Your task to perform on an android device: toggle notification dots Image 0: 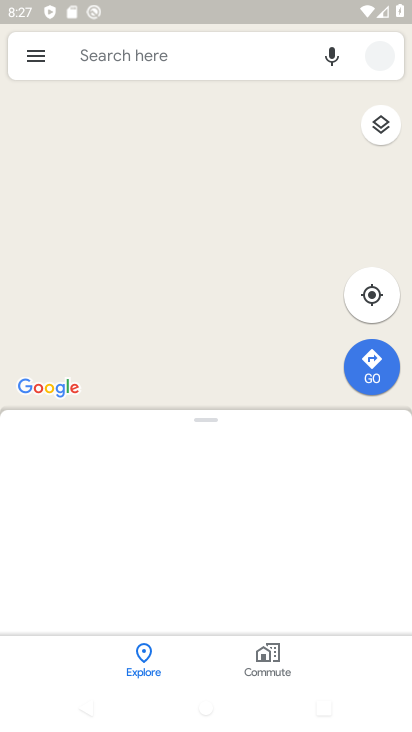
Step 0: press back button
Your task to perform on an android device: toggle notification dots Image 1: 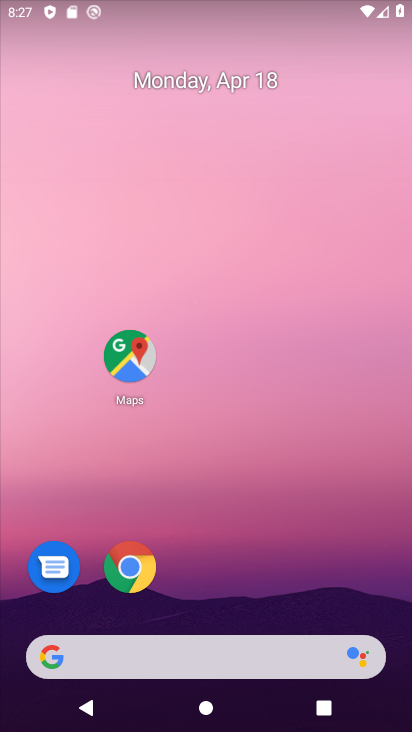
Step 1: drag from (281, 693) to (285, 378)
Your task to perform on an android device: toggle notification dots Image 2: 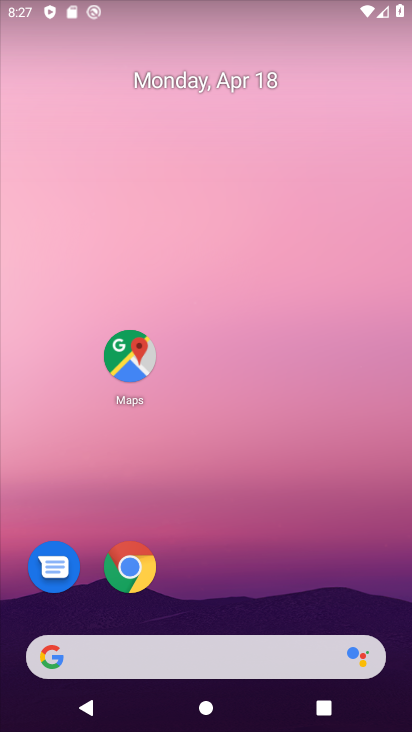
Step 2: drag from (250, 671) to (342, 150)
Your task to perform on an android device: toggle notification dots Image 3: 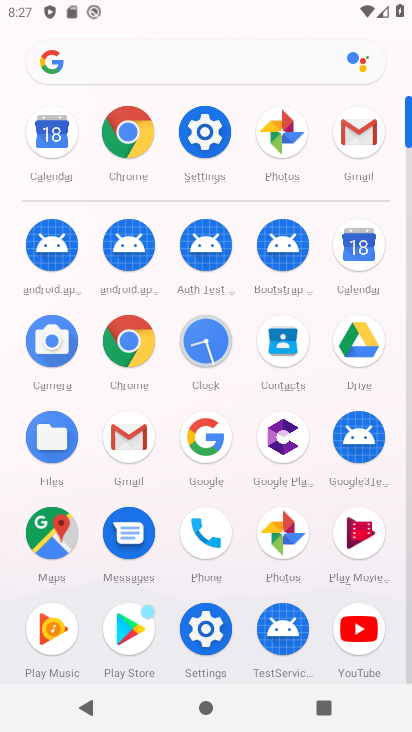
Step 3: click (210, 133)
Your task to perform on an android device: toggle notification dots Image 4: 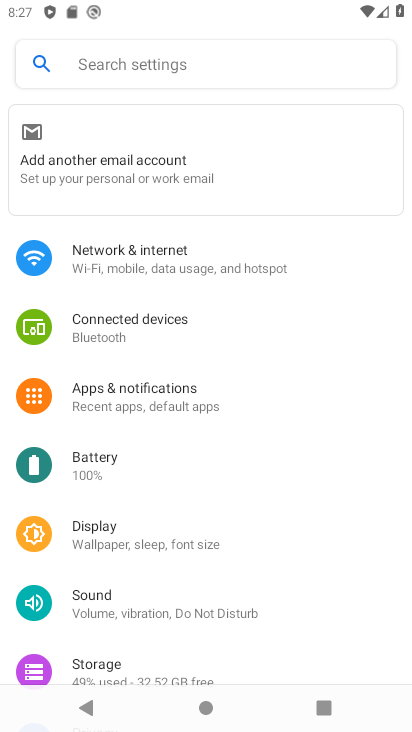
Step 4: click (148, 71)
Your task to perform on an android device: toggle notification dots Image 5: 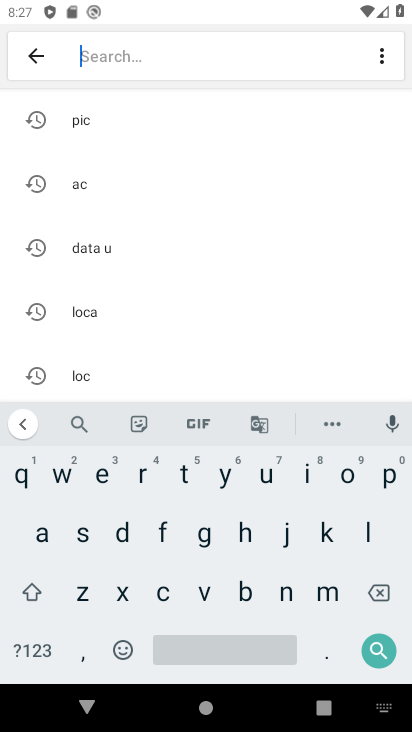
Step 5: click (128, 537)
Your task to perform on an android device: toggle notification dots Image 6: 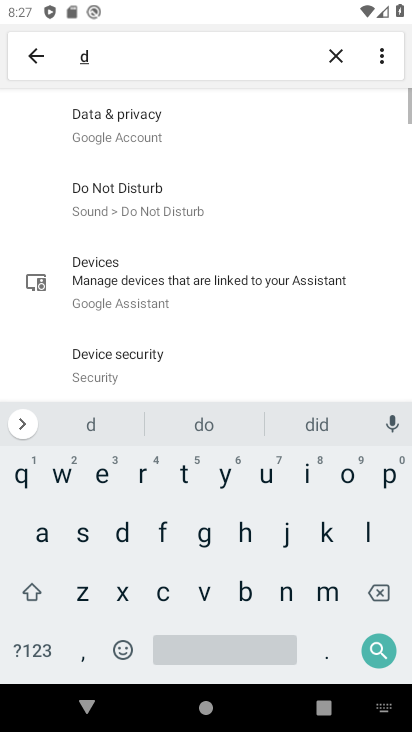
Step 6: click (346, 478)
Your task to perform on an android device: toggle notification dots Image 7: 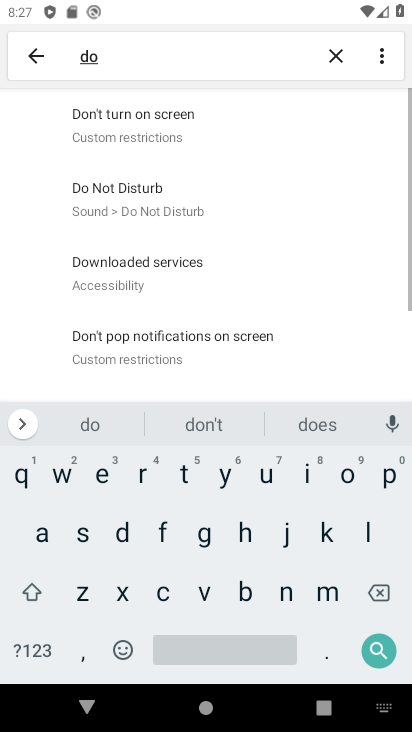
Step 7: click (184, 470)
Your task to perform on an android device: toggle notification dots Image 8: 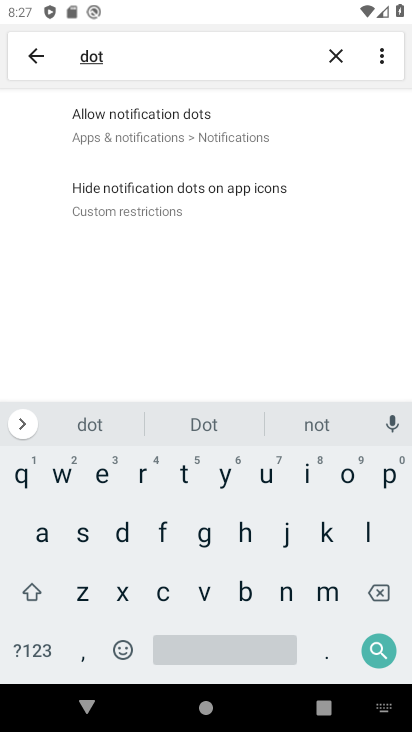
Step 8: click (208, 126)
Your task to perform on an android device: toggle notification dots Image 9: 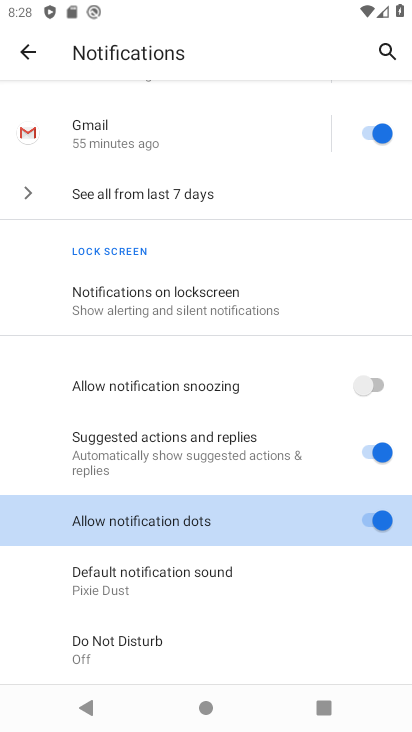
Step 9: task complete